Your task to perform on an android device: turn on location history Image 0: 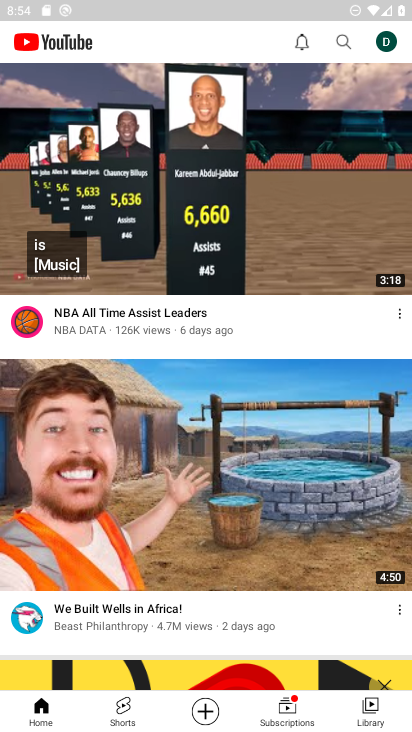
Step 0: press home button
Your task to perform on an android device: turn on location history Image 1: 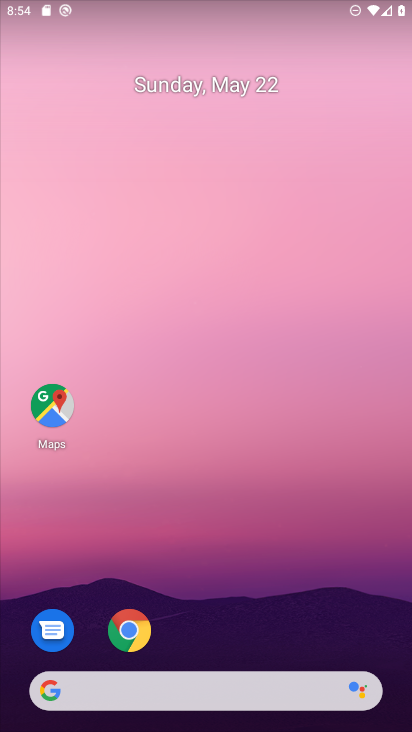
Step 1: drag from (271, 593) to (293, 209)
Your task to perform on an android device: turn on location history Image 2: 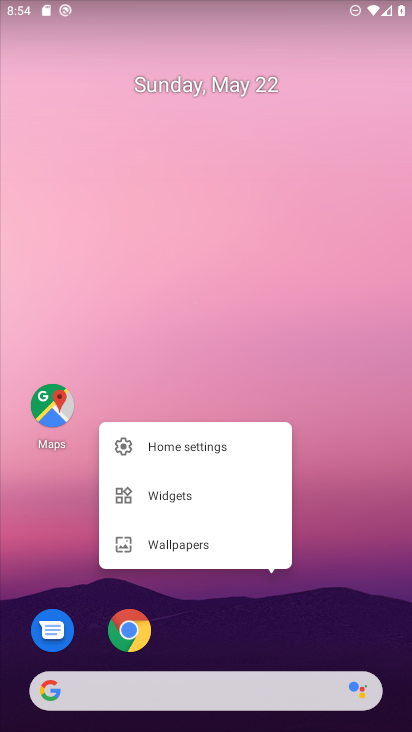
Step 2: click (333, 494)
Your task to perform on an android device: turn on location history Image 3: 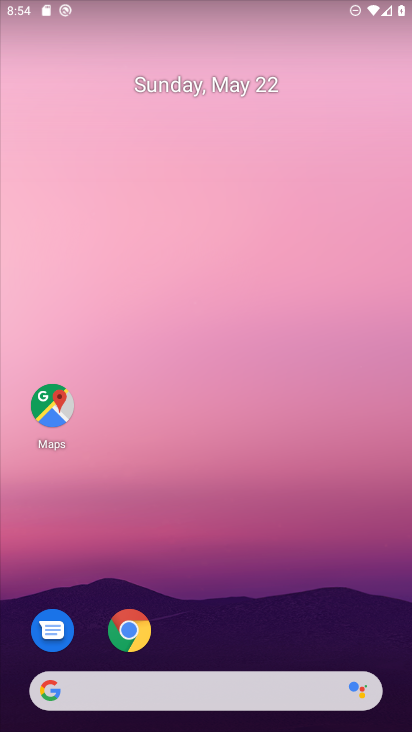
Step 3: drag from (256, 631) to (333, 58)
Your task to perform on an android device: turn on location history Image 4: 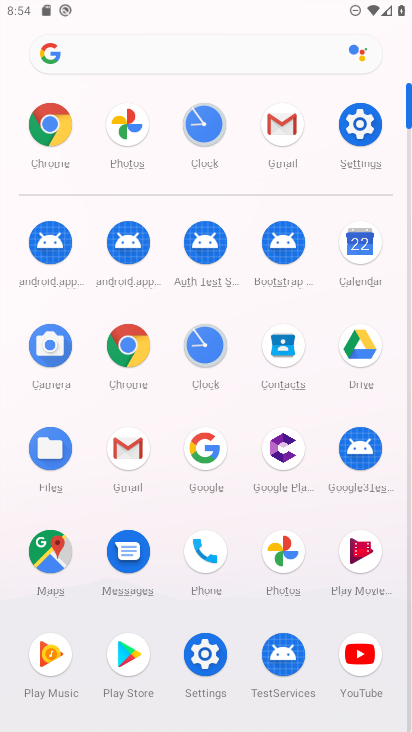
Step 4: click (374, 144)
Your task to perform on an android device: turn on location history Image 5: 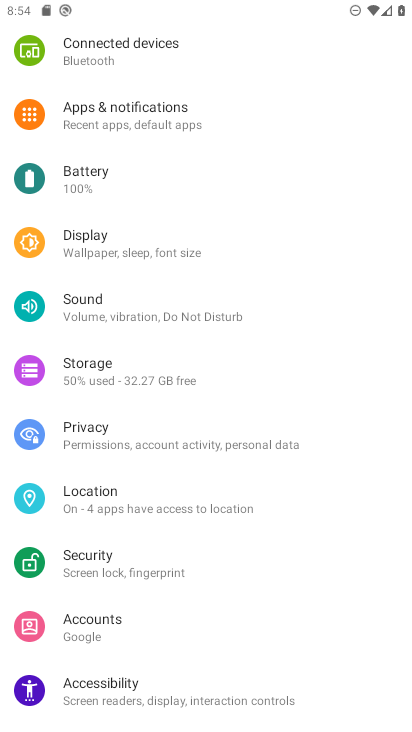
Step 5: click (182, 514)
Your task to perform on an android device: turn on location history Image 6: 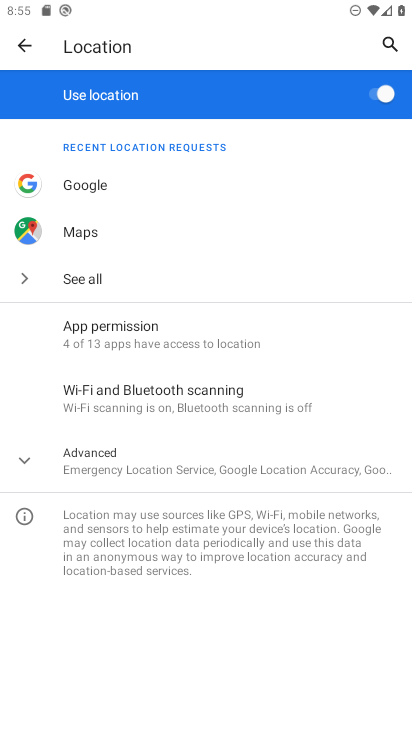
Step 6: press home button
Your task to perform on an android device: turn on location history Image 7: 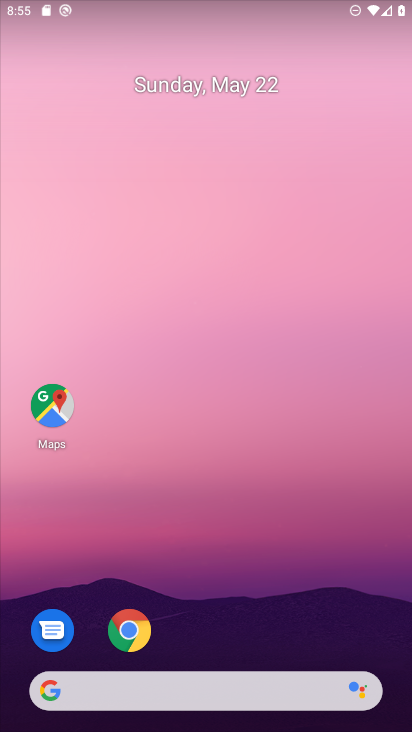
Step 7: drag from (254, 591) to (285, 205)
Your task to perform on an android device: turn on location history Image 8: 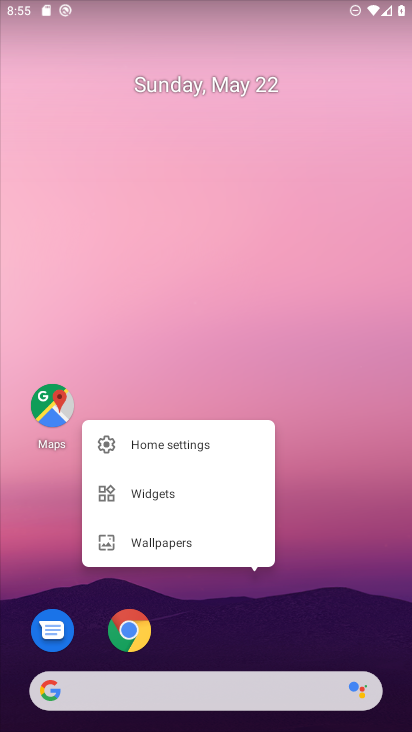
Step 8: click (321, 525)
Your task to perform on an android device: turn on location history Image 9: 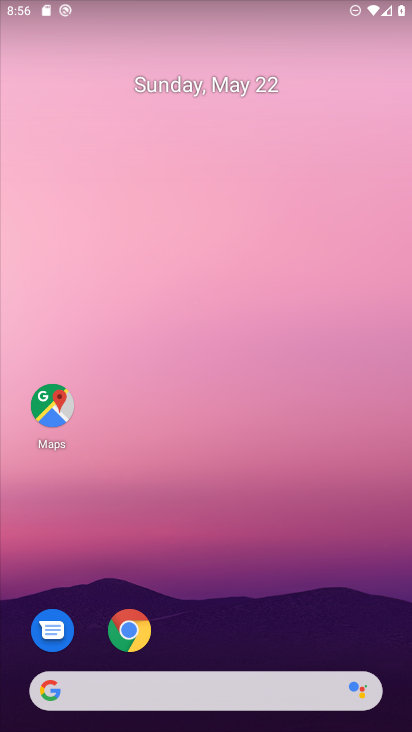
Step 9: drag from (266, 638) to (270, 126)
Your task to perform on an android device: turn on location history Image 10: 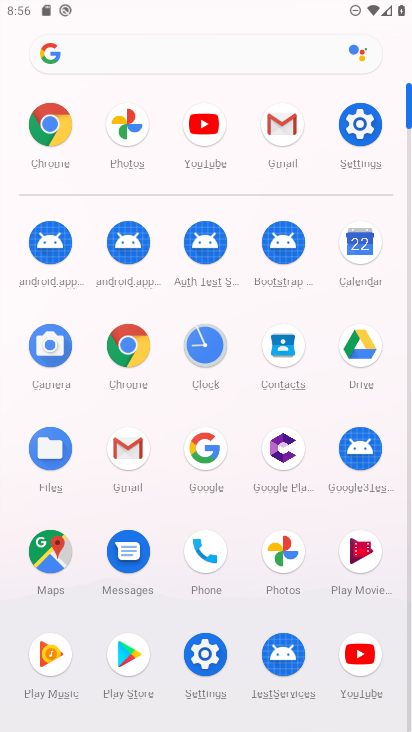
Step 10: click (201, 650)
Your task to perform on an android device: turn on location history Image 11: 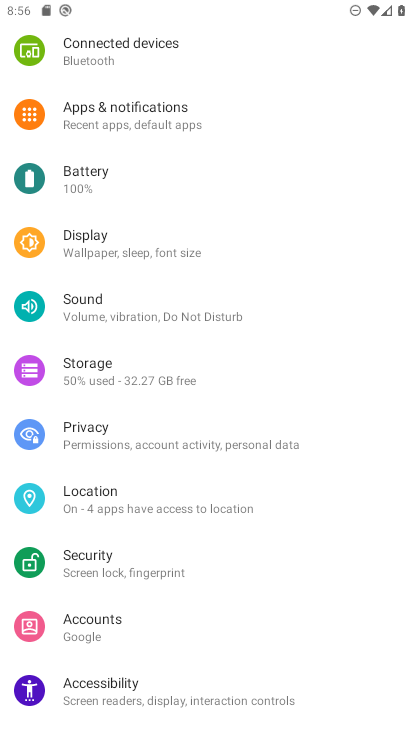
Step 11: click (147, 505)
Your task to perform on an android device: turn on location history Image 12: 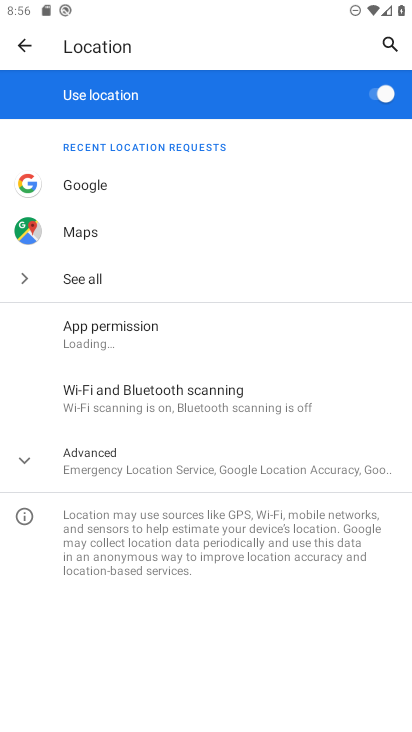
Step 12: click (129, 453)
Your task to perform on an android device: turn on location history Image 13: 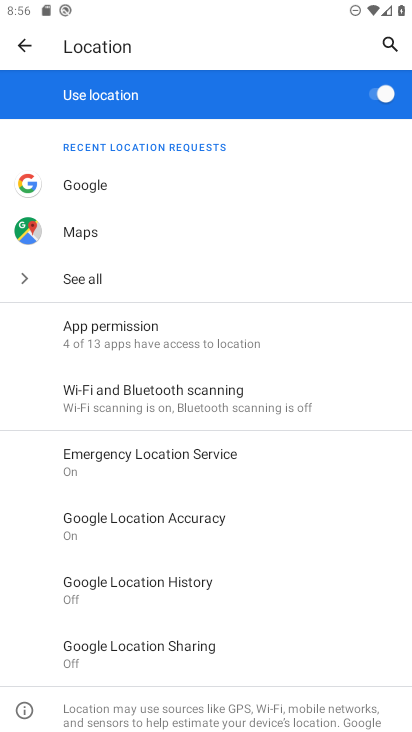
Step 13: click (218, 586)
Your task to perform on an android device: turn on location history Image 14: 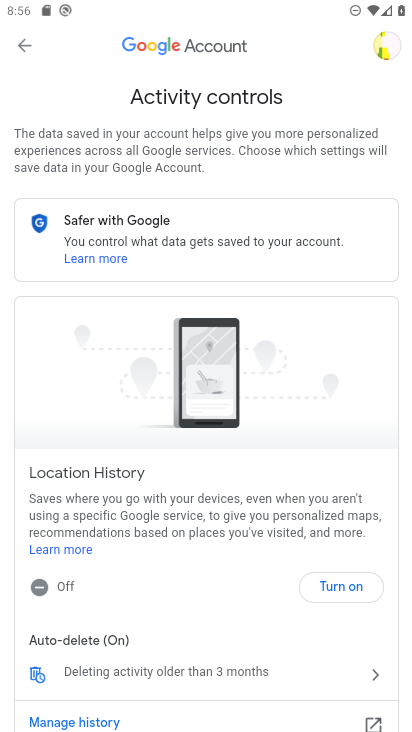
Step 14: task complete